Your task to perform on an android device: Go to Google maps Image 0: 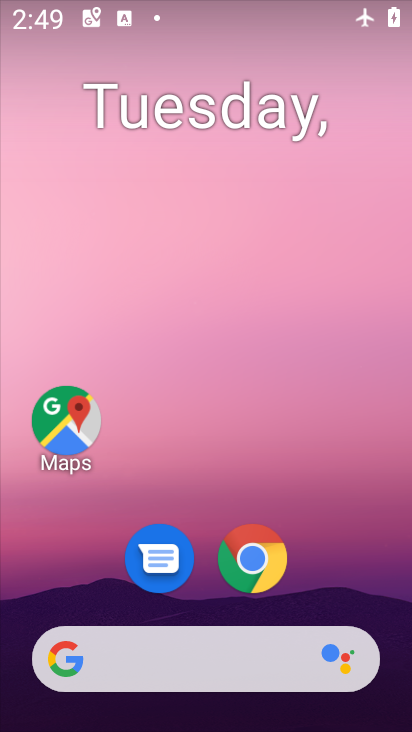
Step 0: click (82, 419)
Your task to perform on an android device: Go to Google maps Image 1: 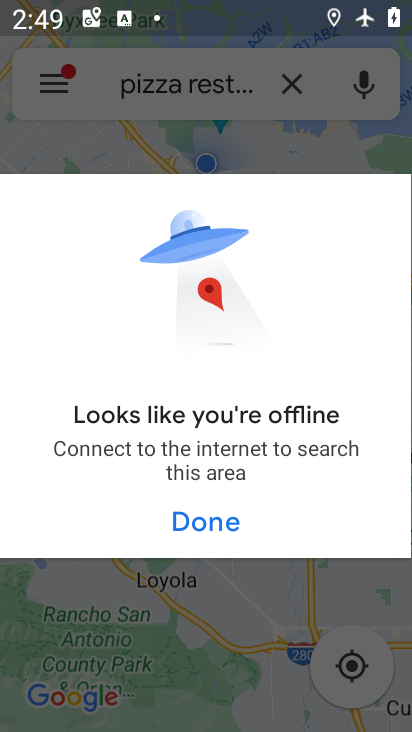
Step 1: task complete